Your task to perform on an android device: Go to notification settings Image 0: 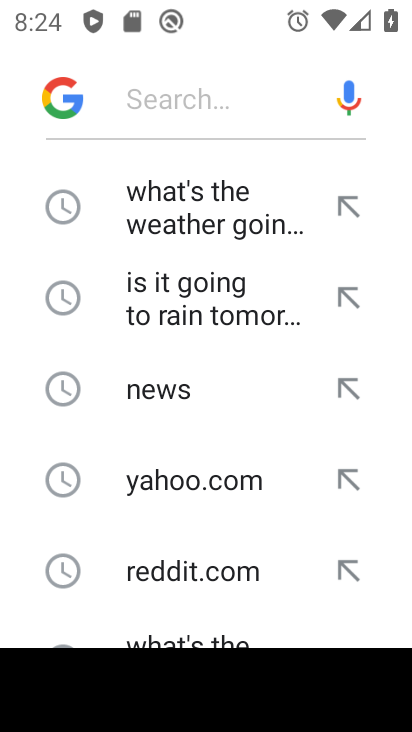
Step 0: press home button
Your task to perform on an android device: Go to notification settings Image 1: 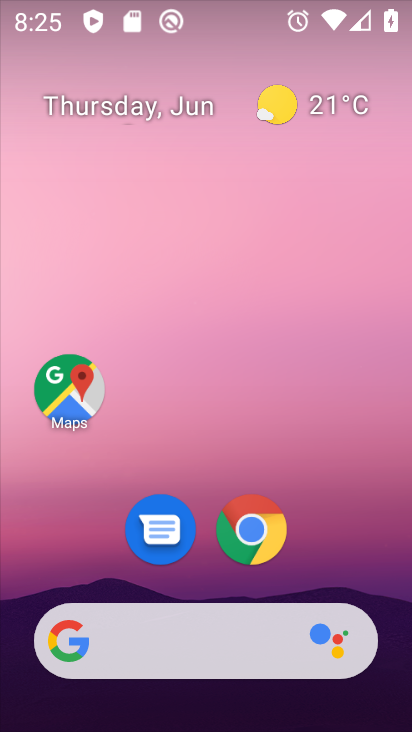
Step 1: drag from (396, 691) to (381, 264)
Your task to perform on an android device: Go to notification settings Image 2: 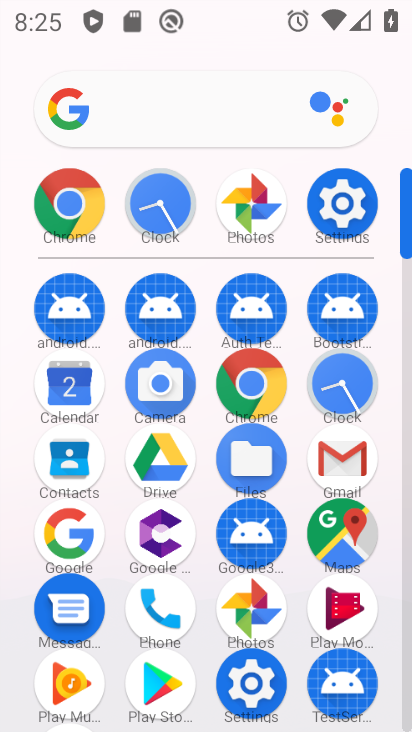
Step 2: click (337, 192)
Your task to perform on an android device: Go to notification settings Image 3: 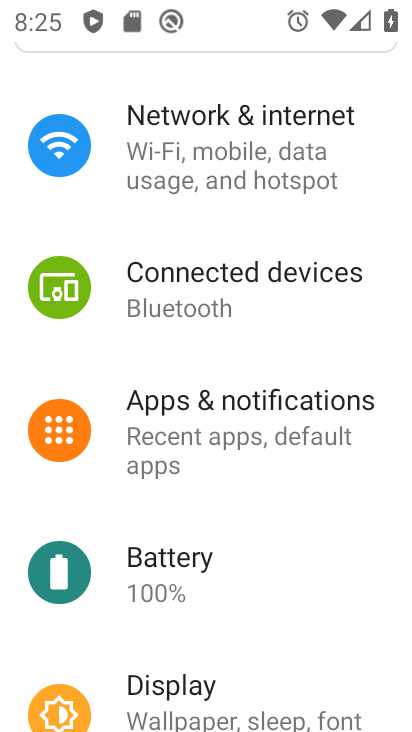
Step 3: click (239, 410)
Your task to perform on an android device: Go to notification settings Image 4: 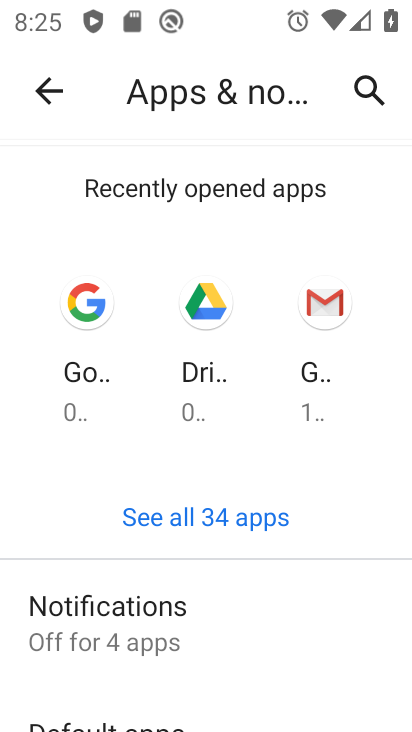
Step 4: click (122, 620)
Your task to perform on an android device: Go to notification settings Image 5: 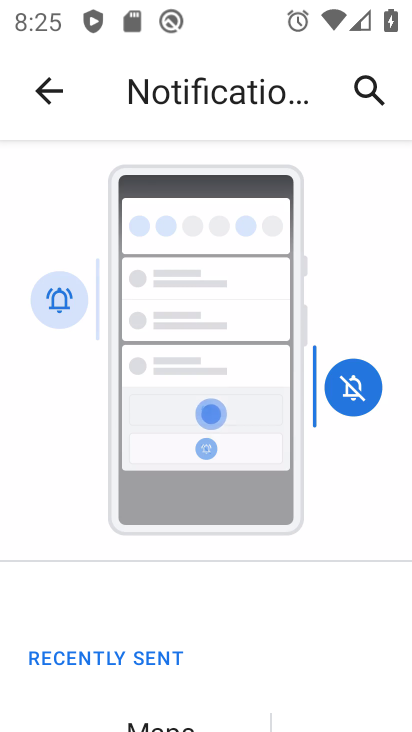
Step 5: drag from (266, 680) to (266, 232)
Your task to perform on an android device: Go to notification settings Image 6: 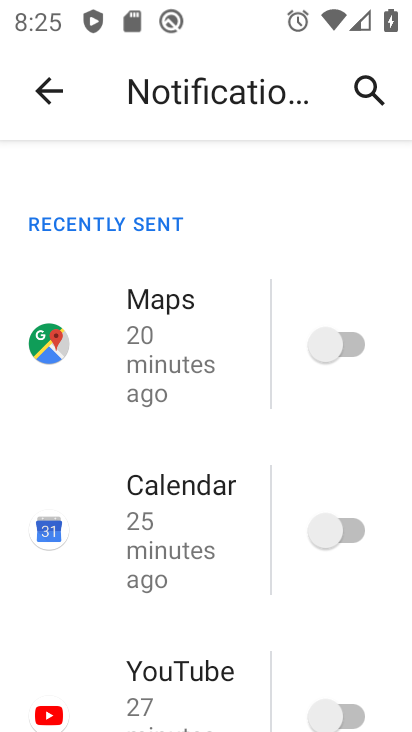
Step 6: drag from (271, 691) to (270, 287)
Your task to perform on an android device: Go to notification settings Image 7: 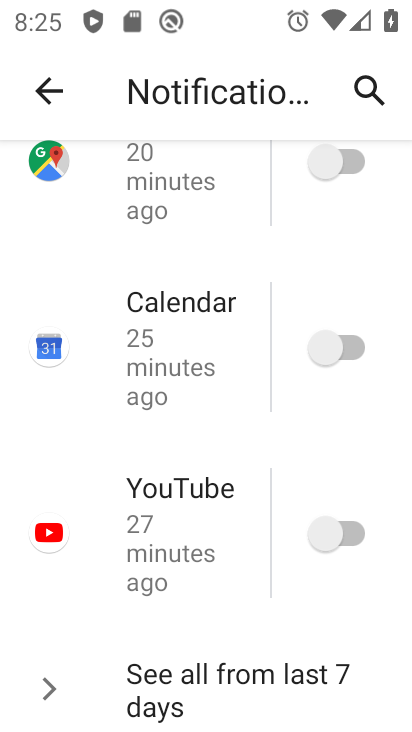
Step 7: drag from (276, 713) to (269, 228)
Your task to perform on an android device: Go to notification settings Image 8: 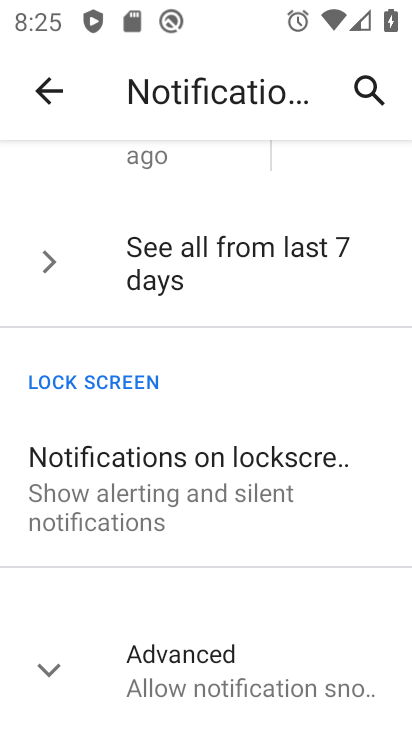
Step 8: drag from (252, 620) to (254, 329)
Your task to perform on an android device: Go to notification settings Image 9: 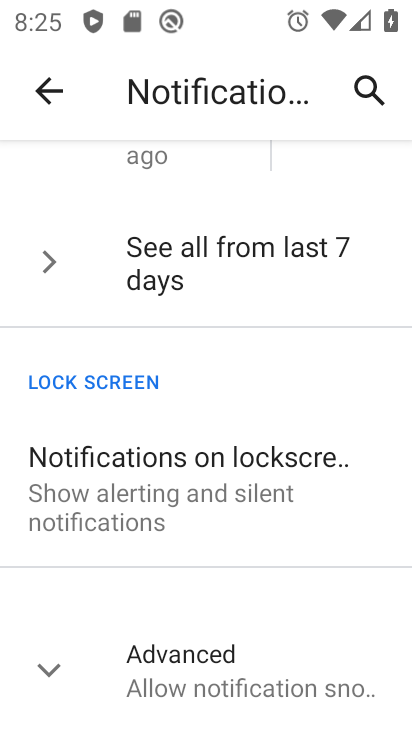
Step 9: click (53, 666)
Your task to perform on an android device: Go to notification settings Image 10: 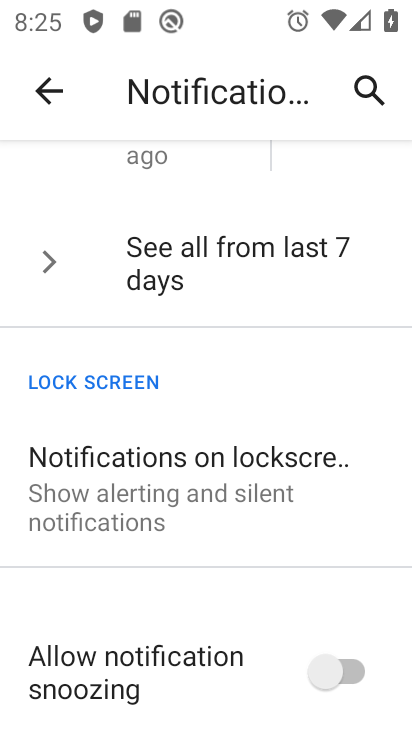
Step 10: task complete